Your task to perform on an android device: turn on priority inbox in the gmail app Image 0: 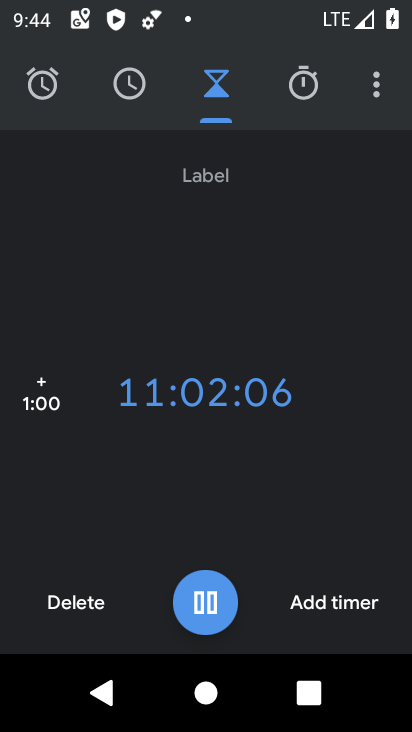
Step 0: press home button
Your task to perform on an android device: turn on priority inbox in the gmail app Image 1: 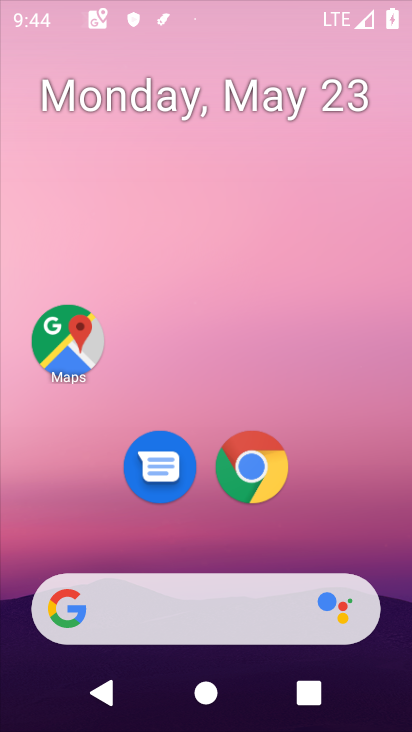
Step 1: drag from (347, 544) to (192, 0)
Your task to perform on an android device: turn on priority inbox in the gmail app Image 2: 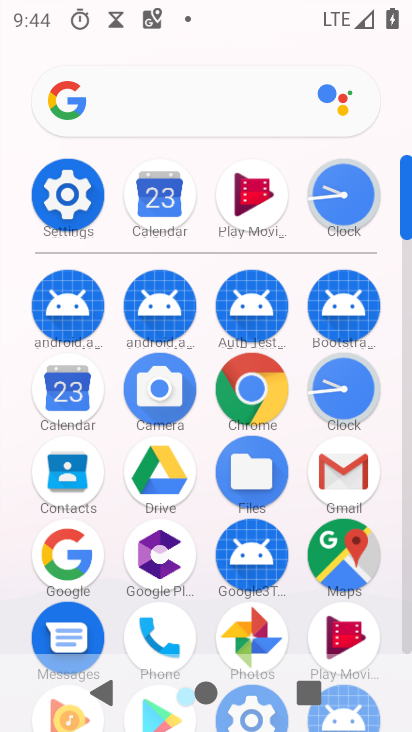
Step 2: click (354, 472)
Your task to perform on an android device: turn on priority inbox in the gmail app Image 3: 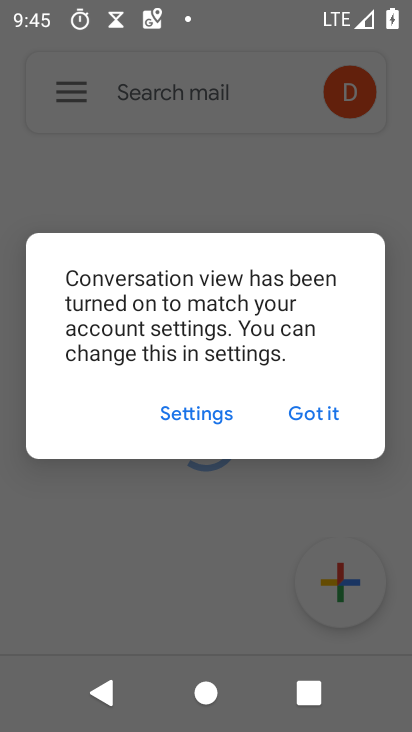
Step 3: click (296, 407)
Your task to perform on an android device: turn on priority inbox in the gmail app Image 4: 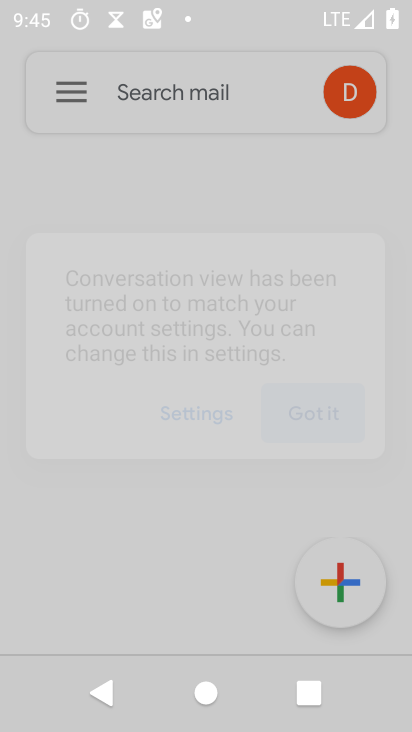
Step 4: click (62, 93)
Your task to perform on an android device: turn on priority inbox in the gmail app Image 5: 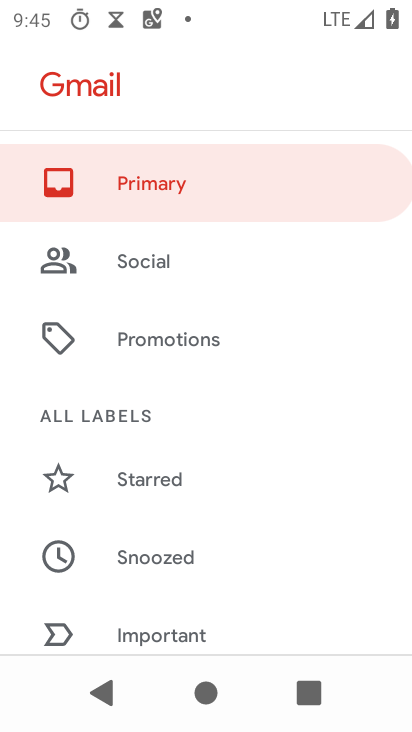
Step 5: drag from (202, 545) to (221, 20)
Your task to perform on an android device: turn on priority inbox in the gmail app Image 6: 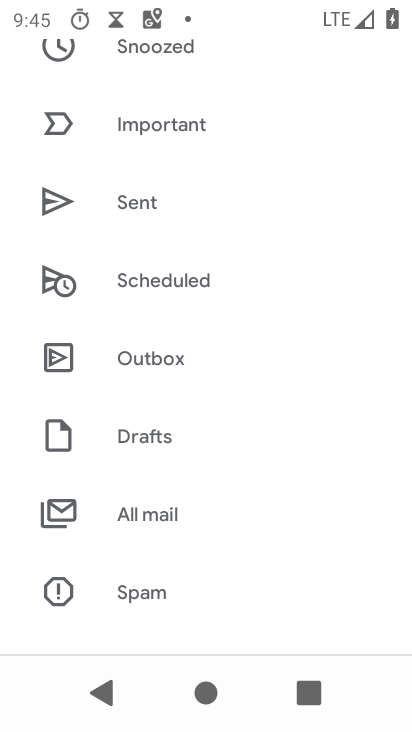
Step 6: drag from (225, 565) to (206, 22)
Your task to perform on an android device: turn on priority inbox in the gmail app Image 7: 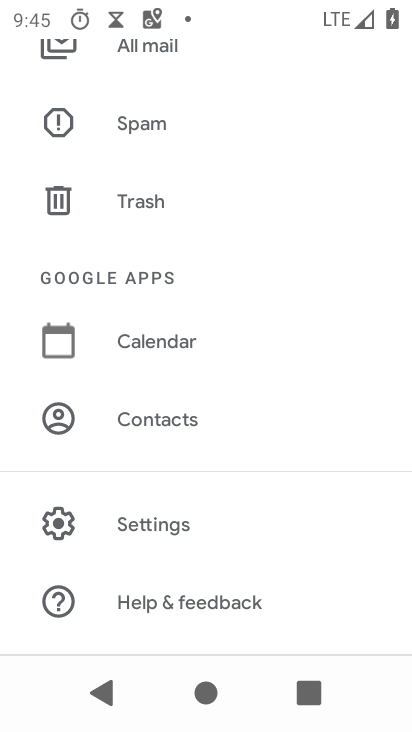
Step 7: click (200, 525)
Your task to perform on an android device: turn on priority inbox in the gmail app Image 8: 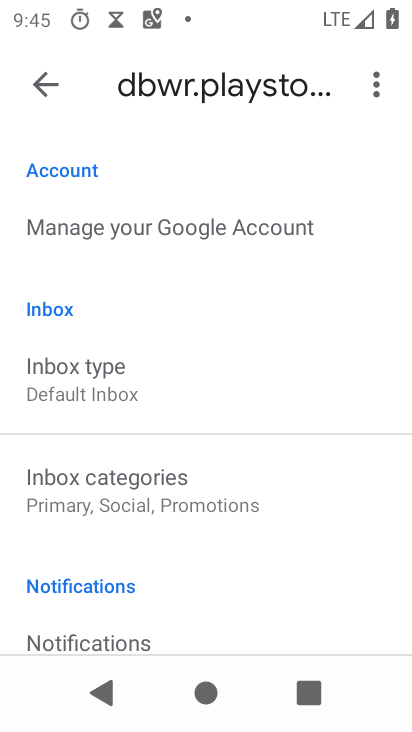
Step 8: click (172, 409)
Your task to perform on an android device: turn on priority inbox in the gmail app Image 9: 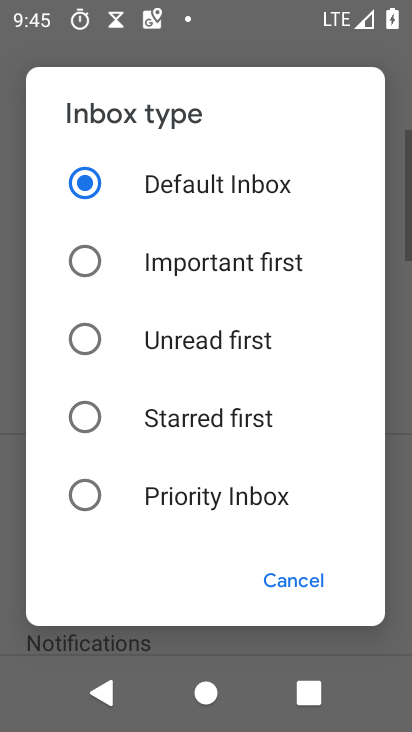
Step 9: click (210, 491)
Your task to perform on an android device: turn on priority inbox in the gmail app Image 10: 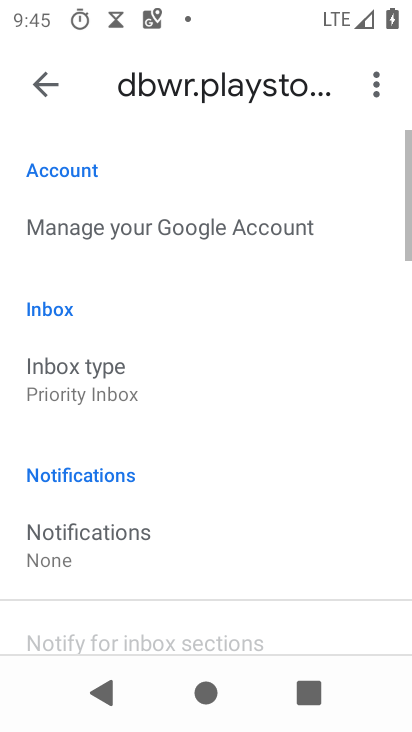
Step 10: task complete